Your task to perform on an android device: delete browsing data in the chrome app Image 0: 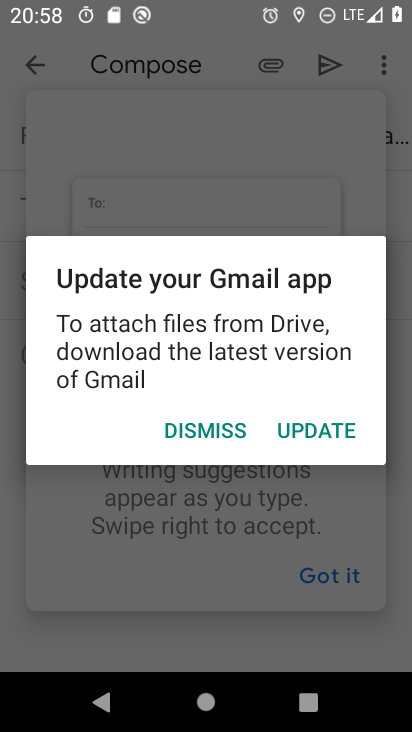
Step 0: press home button
Your task to perform on an android device: delete browsing data in the chrome app Image 1: 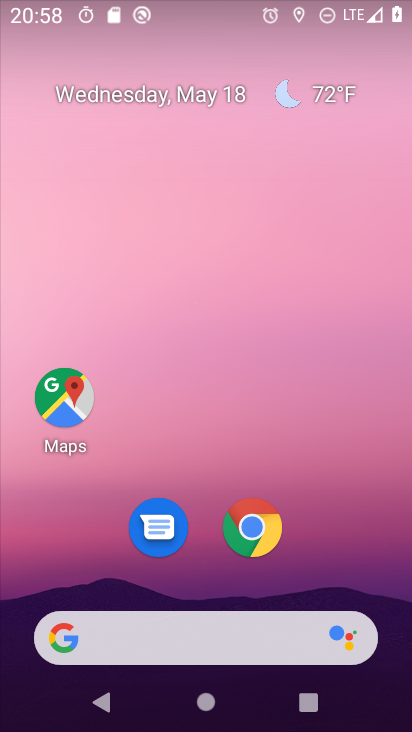
Step 1: click (259, 524)
Your task to perform on an android device: delete browsing data in the chrome app Image 2: 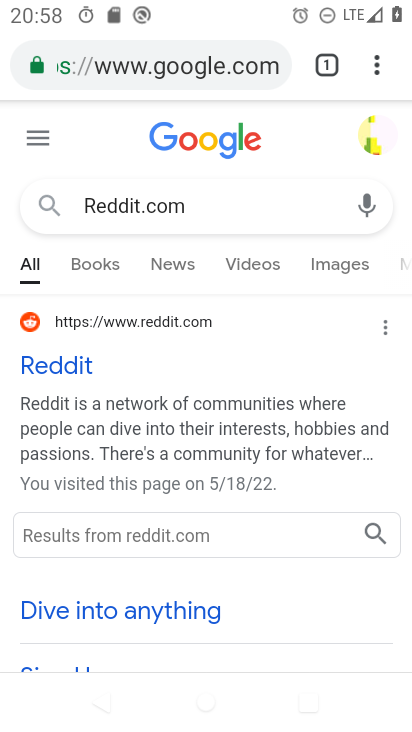
Step 2: click (374, 64)
Your task to perform on an android device: delete browsing data in the chrome app Image 3: 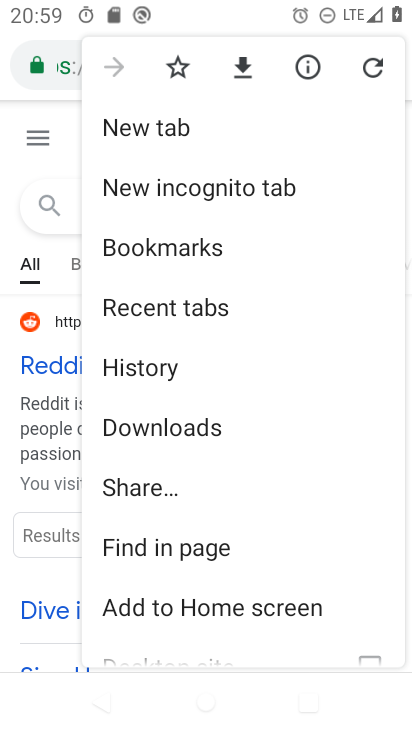
Step 3: click (147, 365)
Your task to perform on an android device: delete browsing data in the chrome app Image 4: 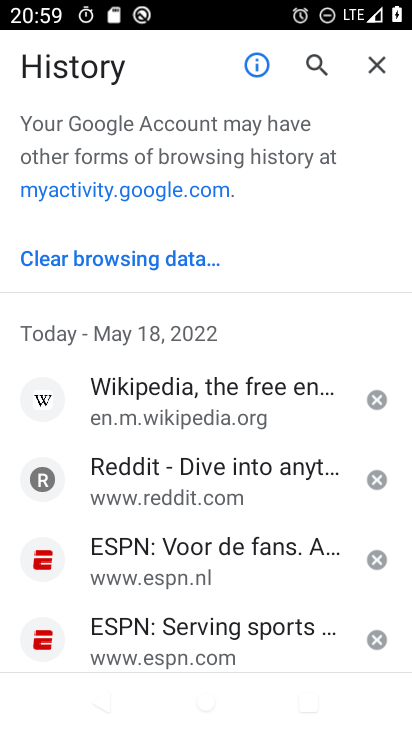
Step 4: click (145, 258)
Your task to perform on an android device: delete browsing data in the chrome app Image 5: 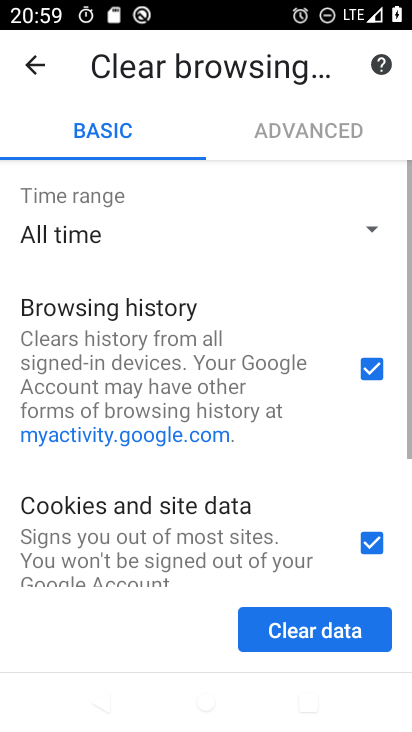
Step 5: click (340, 633)
Your task to perform on an android device: delete browsing data in the chrome app Image 6: 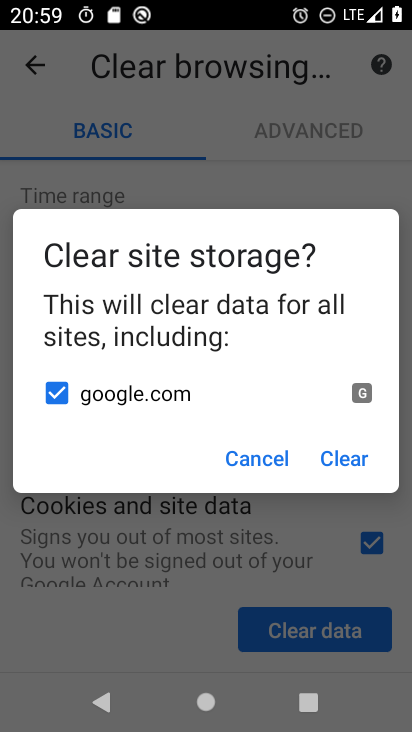
Step 6: click (332, 456)
Your task to perform on an android device: delete browsing data in the chrome app Image 7: 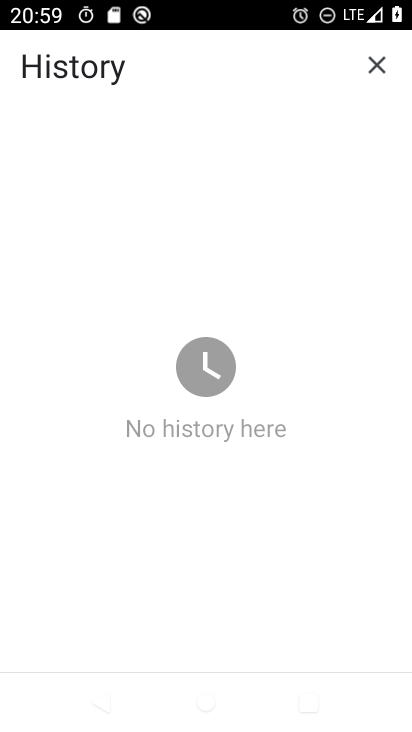
Step 7: task complete